Your task to perform on an android device: open wifi settings Image 0: 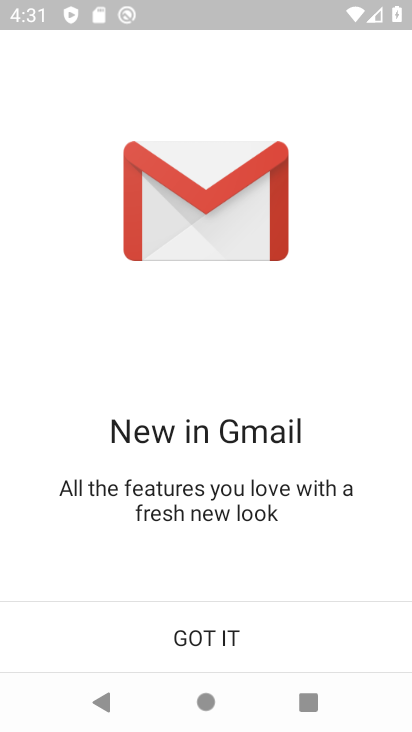
Step 0: drag from (231, 721) to (233, 298)
Your task to perform on an android device: open wifi settings Image 1: 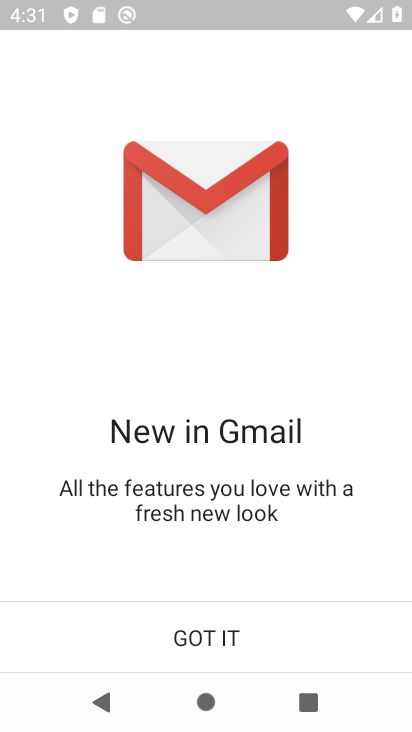
Step 1: press home button
Your task to perform on an android device: open wifi settings Image 2: 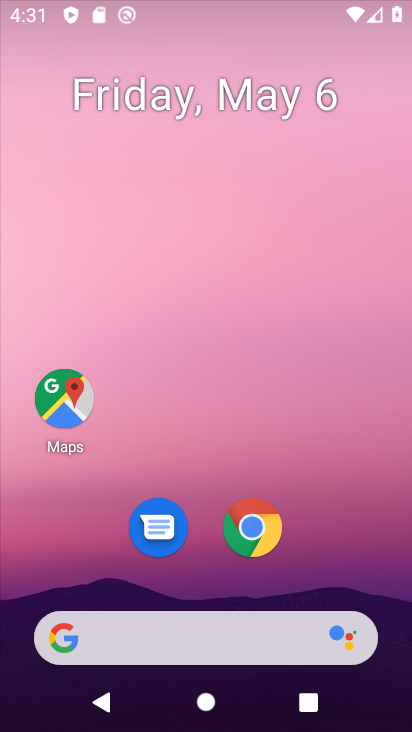
Step 2: drag from (227, 706) to (225, 269)
Your task to perform on an android device: open wifi settings Image 3: 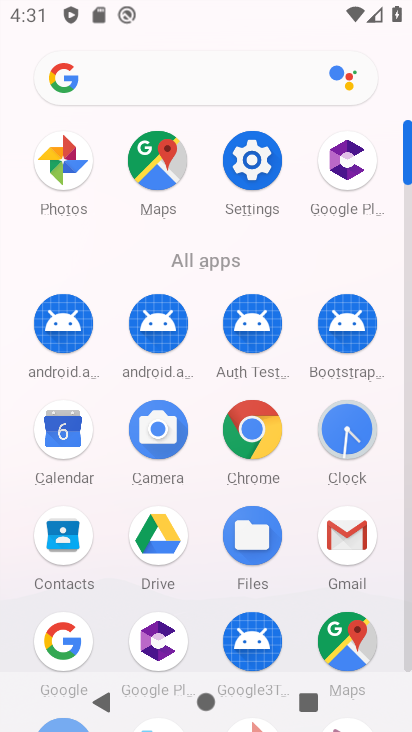
Step 3: click (248, 166)
Your task to perform on an android device: open wifi settings Image 4: 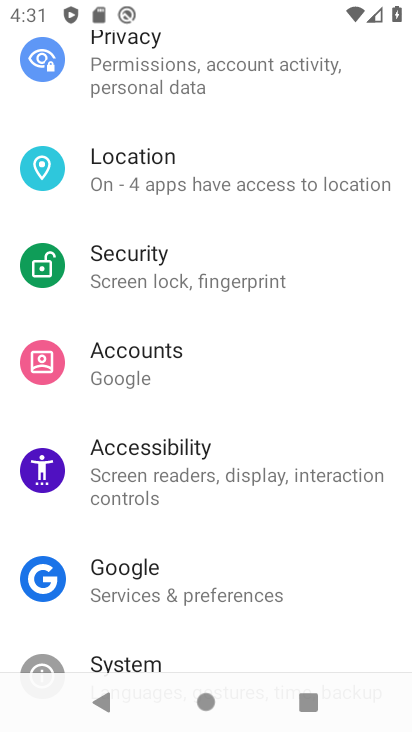
Step 4: drag from (213, 130) to (202, 469)
Your task to perform on an android device: open wifi settings Image 5: 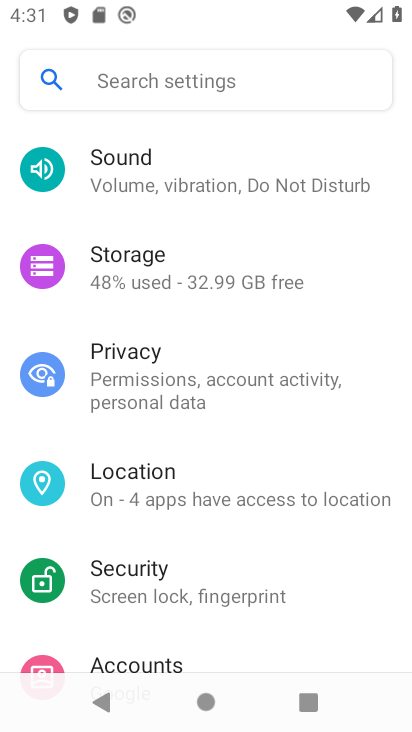
Step 5: drag from (180, 158) to (173, 574)
Your task to perform on an android device: open wifi settings Image 6: 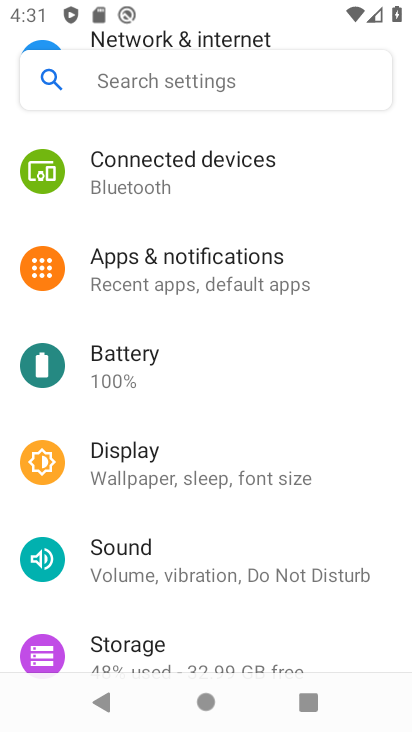
Step 6: drag from (192, 151) to (253, 632)
Your task to perform on an android device: open wifi settings Image 7: 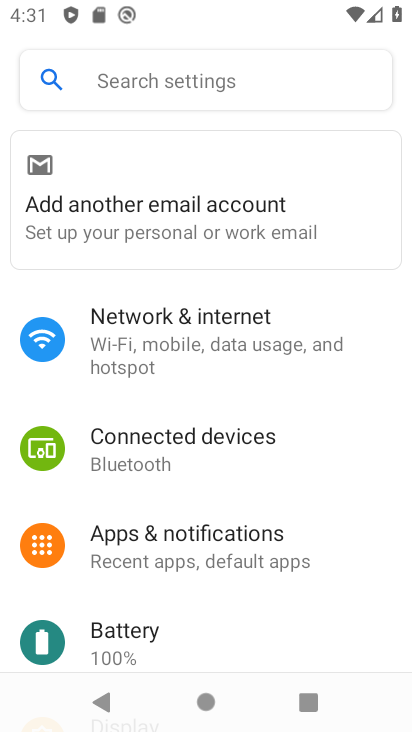
Step 7: click (130, 323)
Your task to perform on an android device: open wifi settings Image 8: 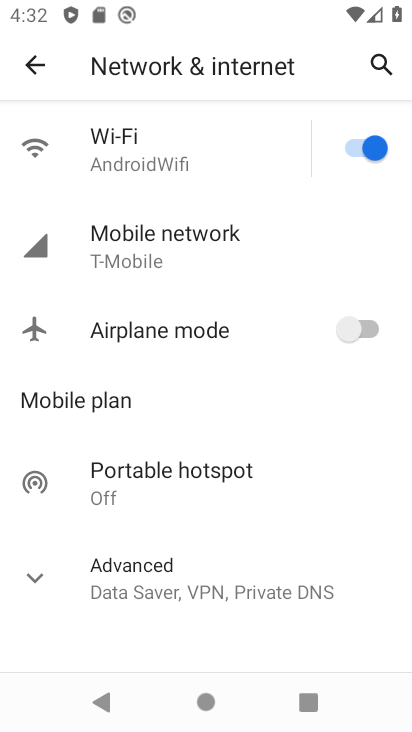
Step 8: click (116, 145)
Your task to perform on an android device: open wifi settings Image 9: 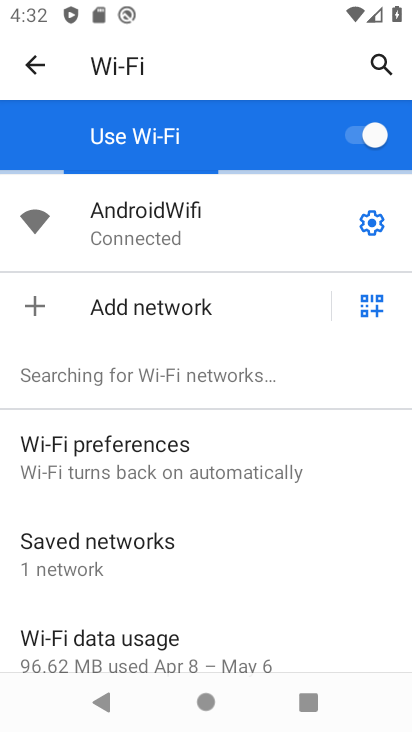
Step 9: task complete